Your task to perform on an android device: toggle notifications settings in the gmail app Image 0: 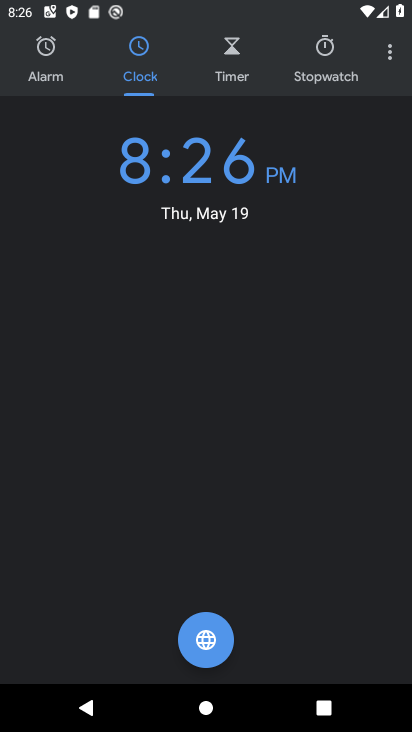
Step 0: press home button
Your task to perform on an android device: toggle notifications settings in the gmail app Image 1: 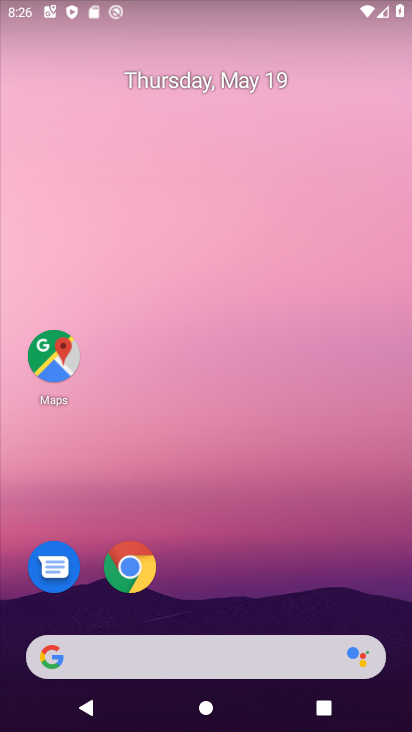
Step 1: drag from (208, 549) to (249, 12)
Your task to perform on an android device: toggle notifications settings in the gmail app Image 2: 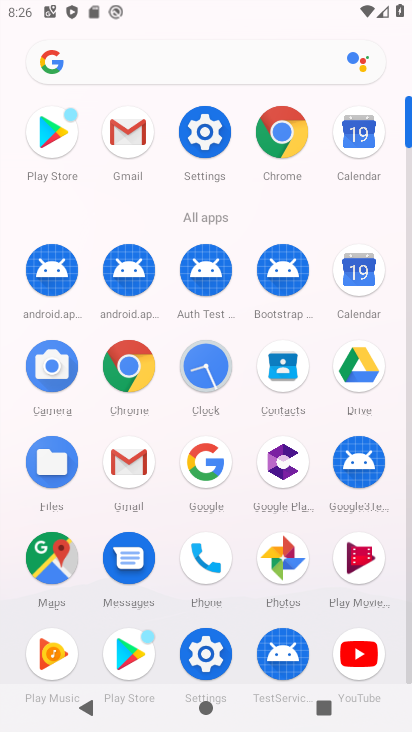
Step 2: click (131, 457)
Your task to perform on an android device: toggle notifications settings in the gmail app Image 3: 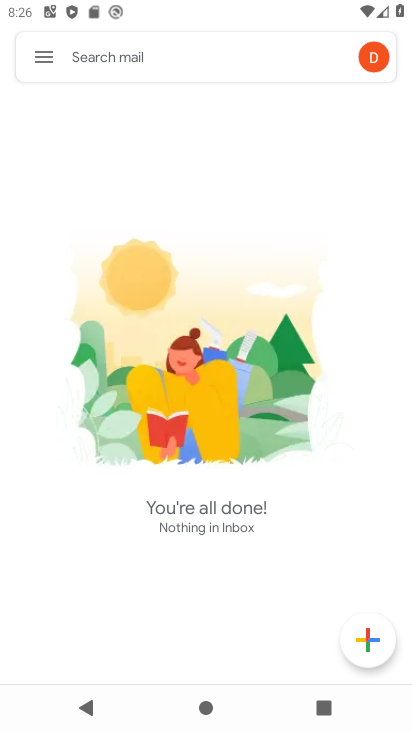
Step 3: click (38, 52)
Your task to perform on an android device: toggle notifications settings in the gmail app Image 4: 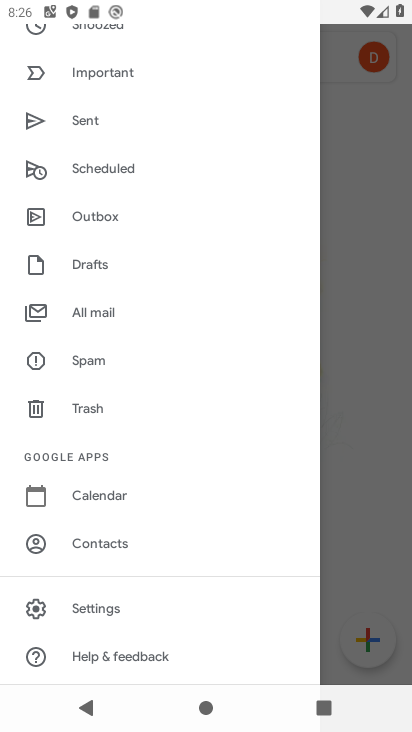
Step 4: click (103, 608)
Your task to perform on an android device: toggle notifications settings in the gmail app Image 5: 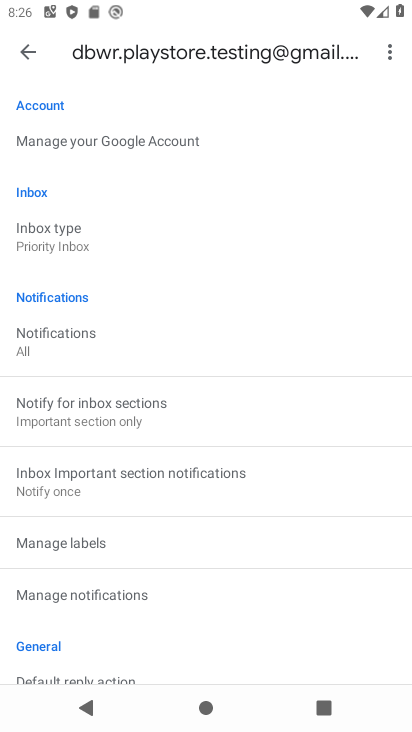
Step 5: drag from (136, 534) to (136, 482)
Your task to perform on an android device: toggle notifications settings in the gmail app Image 6: 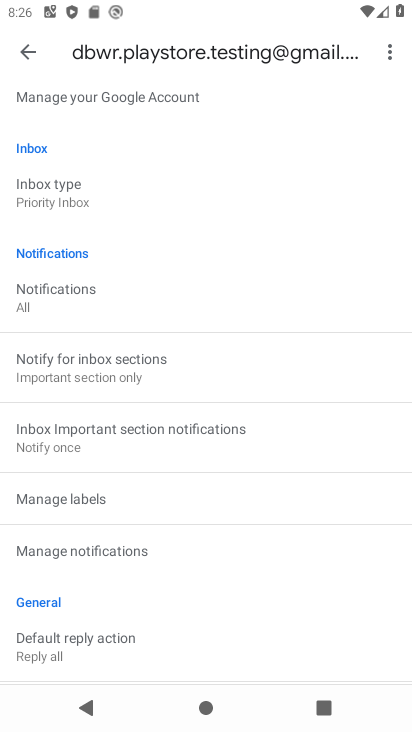
Step 6: click (20, 53)
Your task to perform on an android device: toggle notifications settings in the gmail app Image 7: 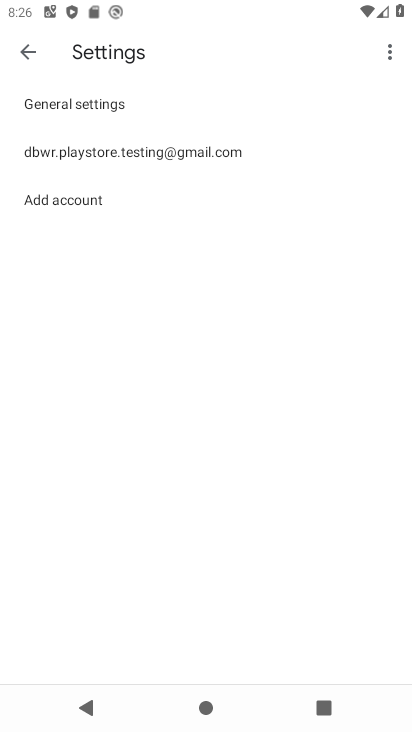
Step 7: click (151, 100)
Your task to perform on an android device: toggle notifications settings in the gmail app Image 8: 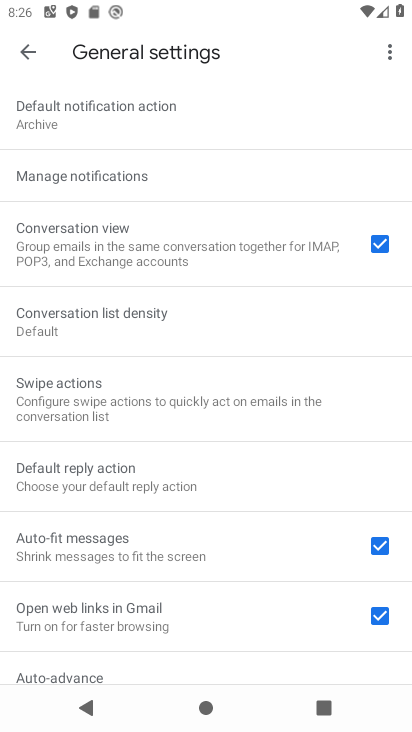
Step 8: click (58, 163)
Your task to perform on an android device: toggle notifications settings in the gmail app Image 9: 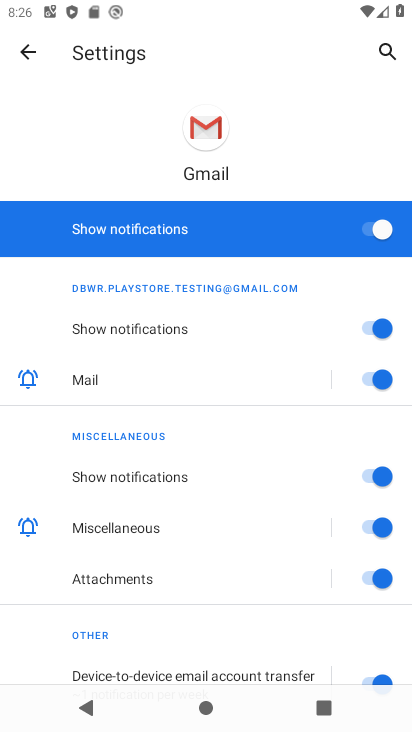
Step 9: click (363, 230)
Your task to perform on an android device: toggle notifications settings in the gmail app Image 10: 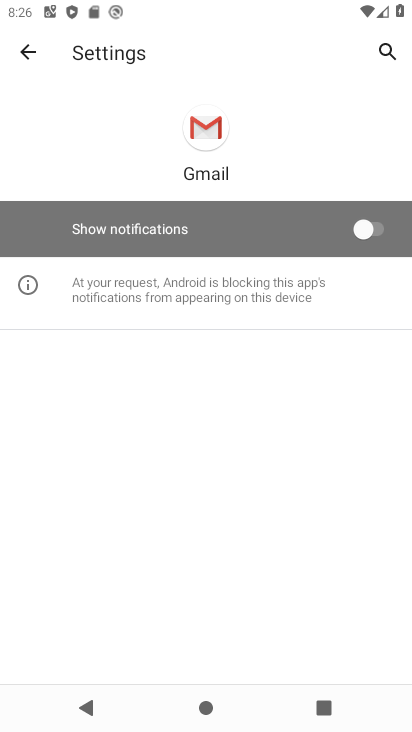
Step 10: task complete